Your task to perform on an android device: Go to Amazon Image 0: 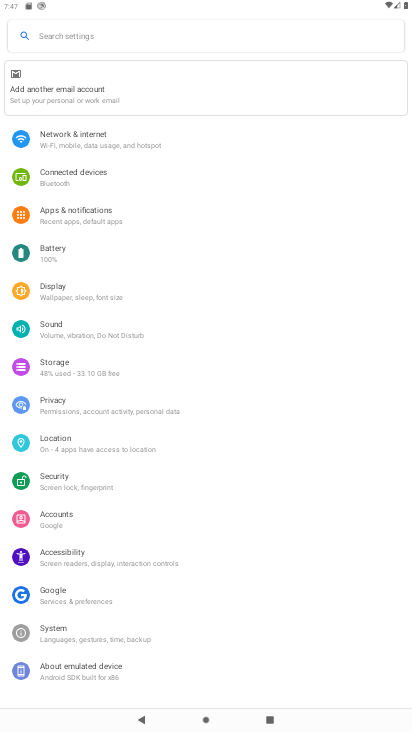
Step 0: press home button
Your task to perform on an android device: Go to Amazon Image 1: 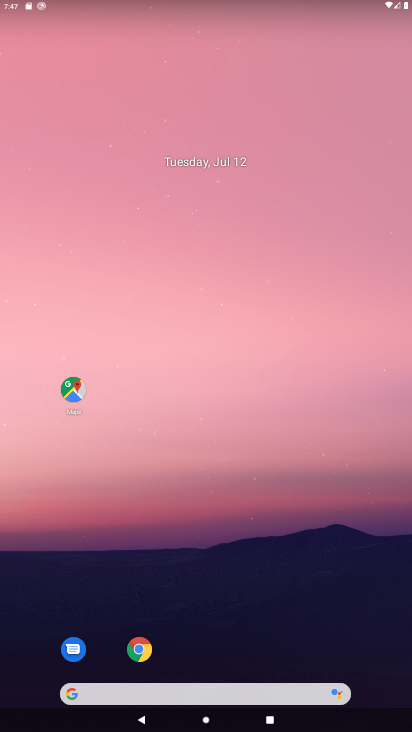
Step 1: click (139, 643)
Your task to perform on an android device: Go to Amazon Image 2: 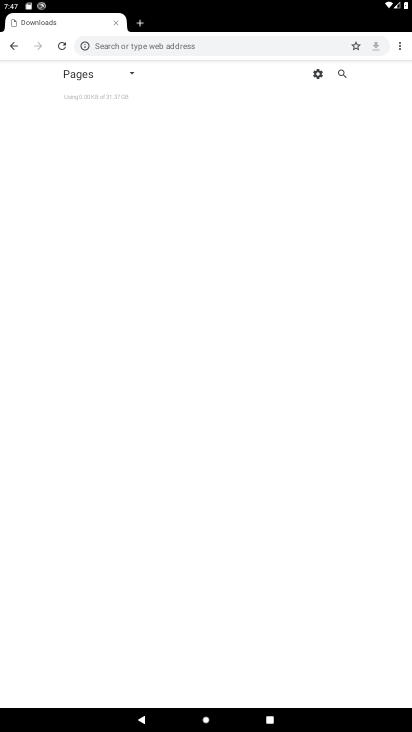
Step 2: click (11, 51)
Your task to perform on an android device: Go to Amazon Image 3: 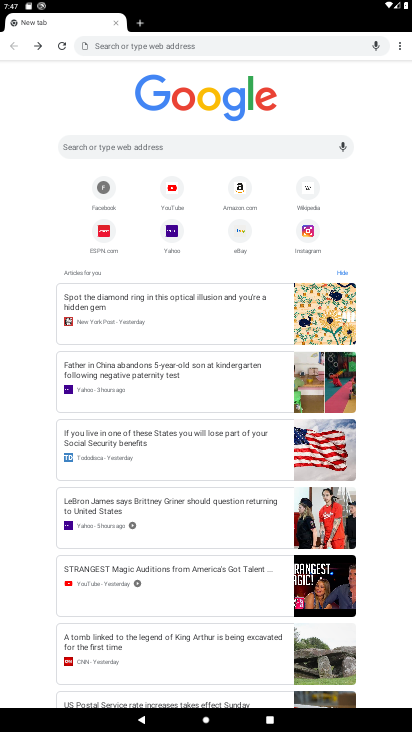
Step 3: click (230, 190)
Your task to perform on an android device: Go to Amazon Image 4: 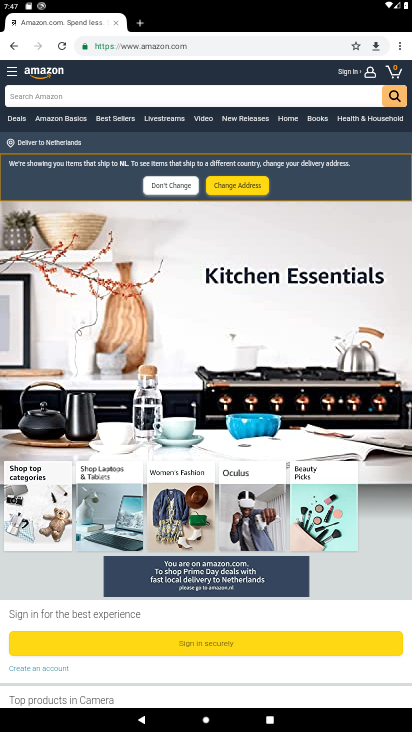
Step 4: task complete